Your task to perform on an android device: Go to Google Image 0: 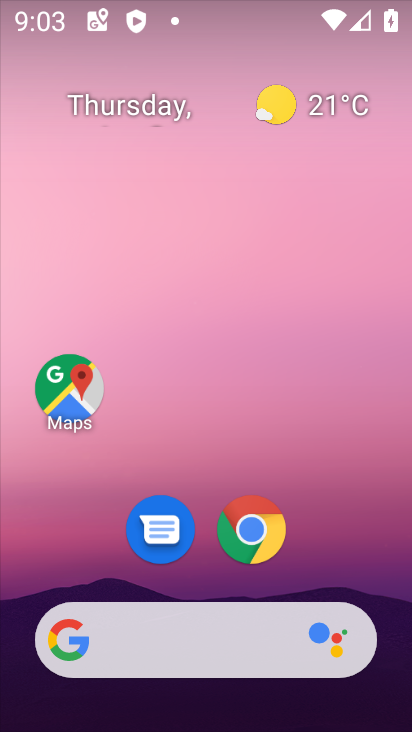
Step 0: drag from (271, 715) to (390, 4)
Your task to perform on an android device: Go to Google Image 1: 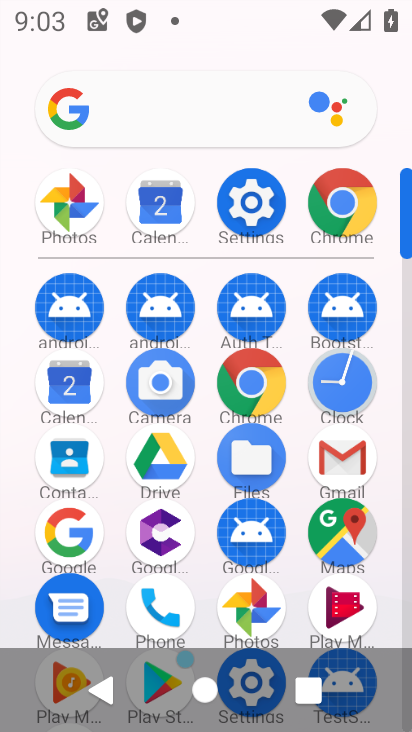
Step 1: click (81, 541)
Your task to perform on an android device: Go to Google Image 2: 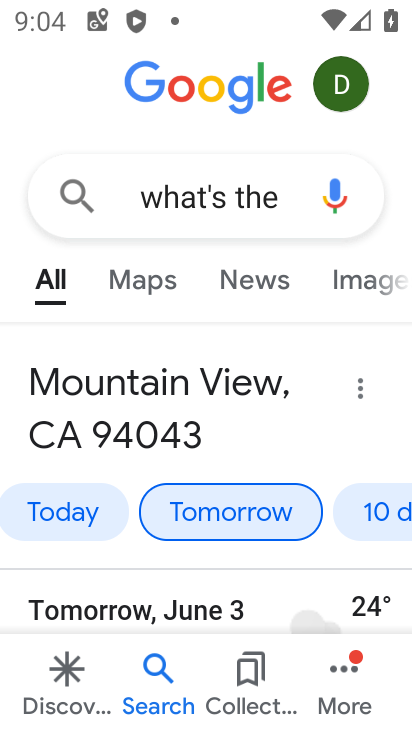
Step 2: task complete